Your task to perform on an android device: Search for Italian restaurants on Maps Image 0: 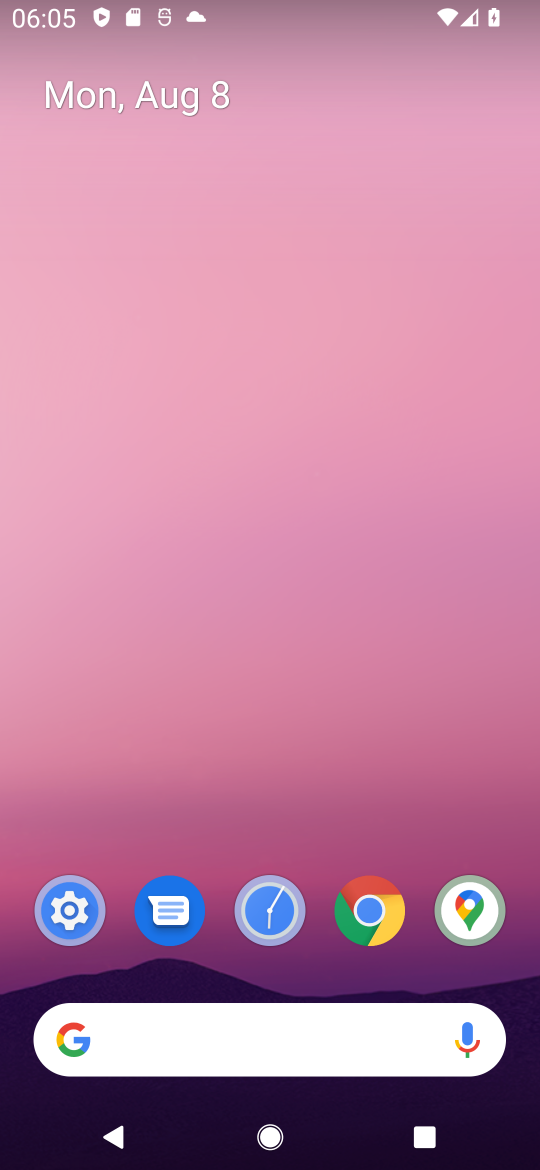
Step 0: click (473, 909)
Your task to perform on an android device: Search for Italian restaurants on Maps Image 1: 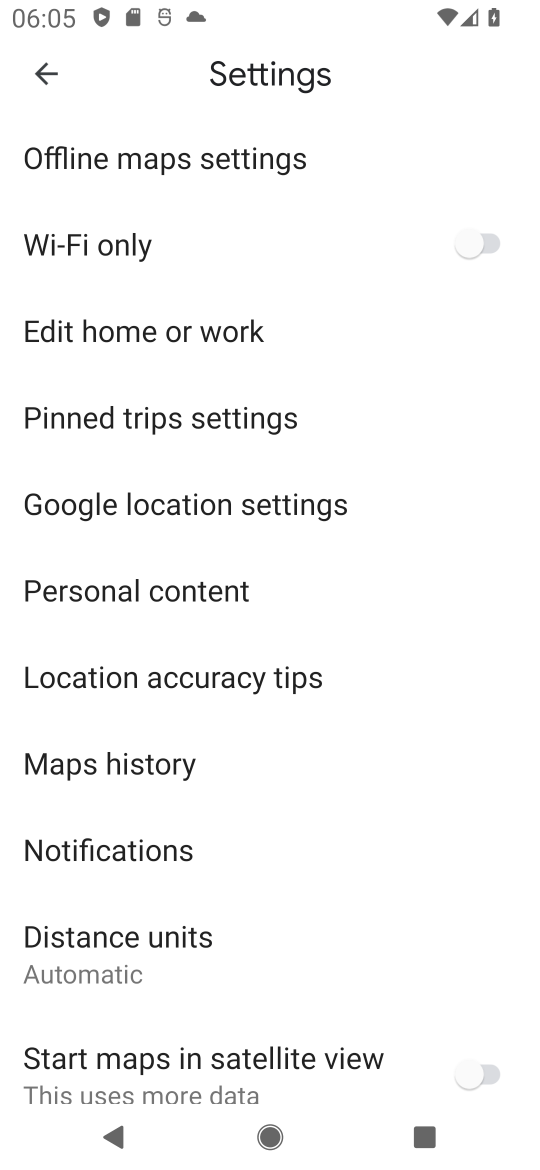
Step 1: press back button
Your task to perform on an android device: Search for Italian restaurants on Maps Image 2: 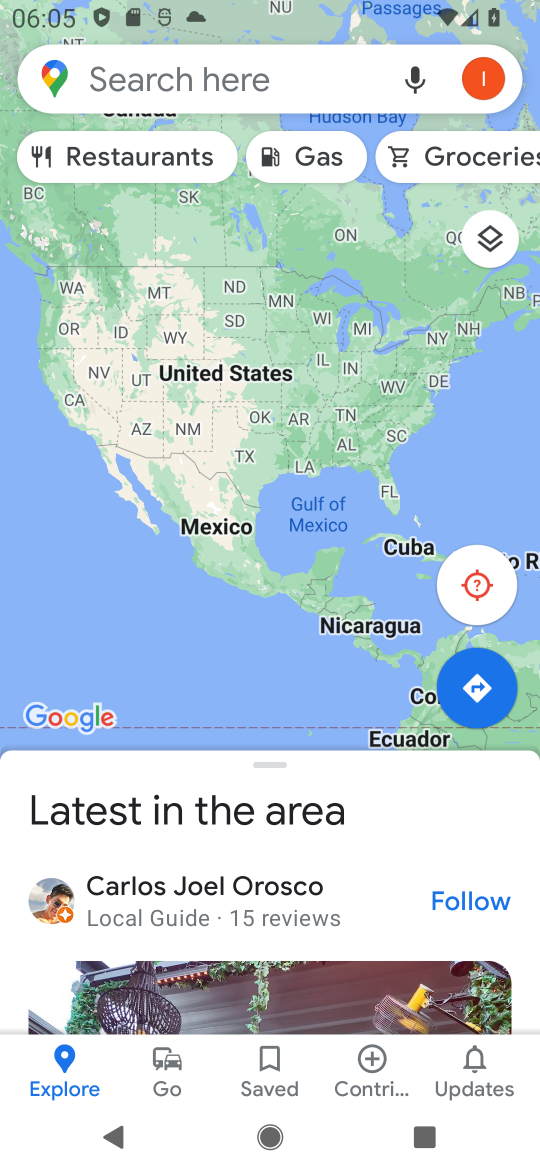
Step 2: click (295, 68)
Your task to perform on an android device: Search for Italian restaurants on Maps Image 3: 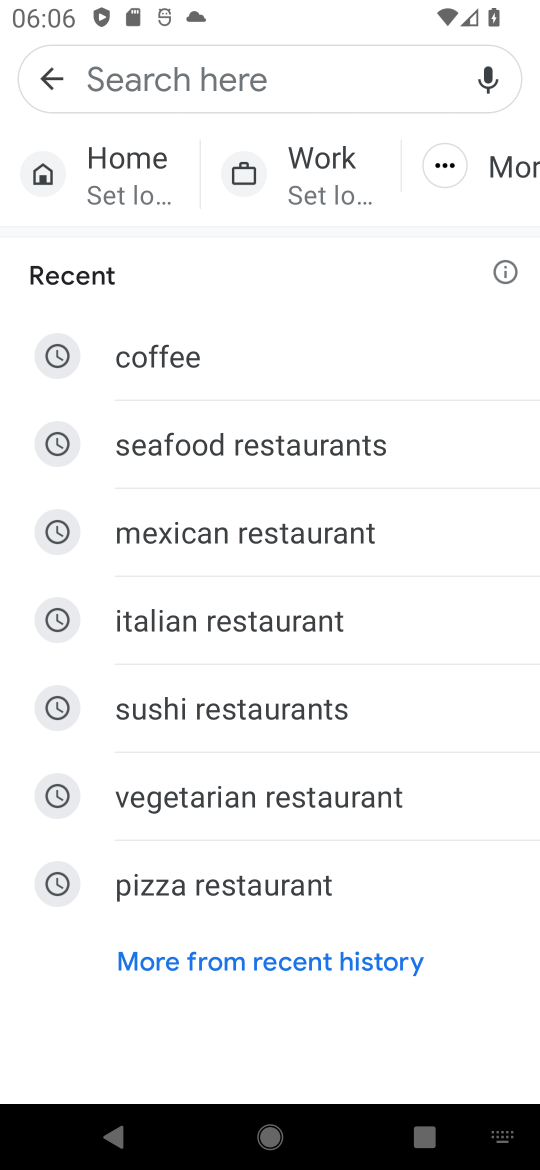
Step 3: type "Italian restaurants"
Your task to perform on an android device: Search for Italian restaurants on Maps Image 4: 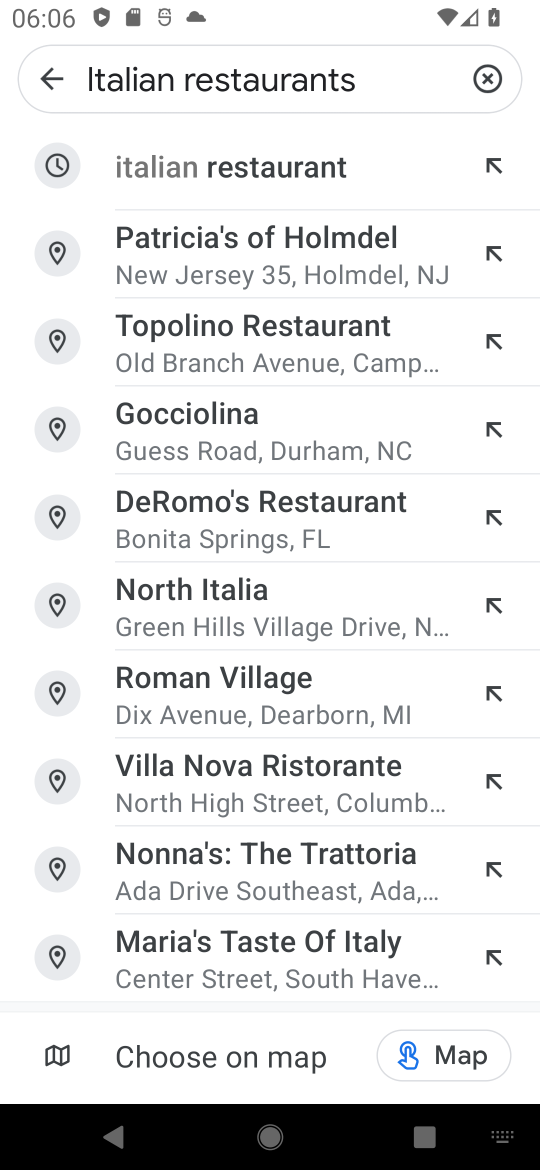
Step 4: click (256, 169)
Your task to perform on an android device: Search for Italian restaurants on Maps Image 5: 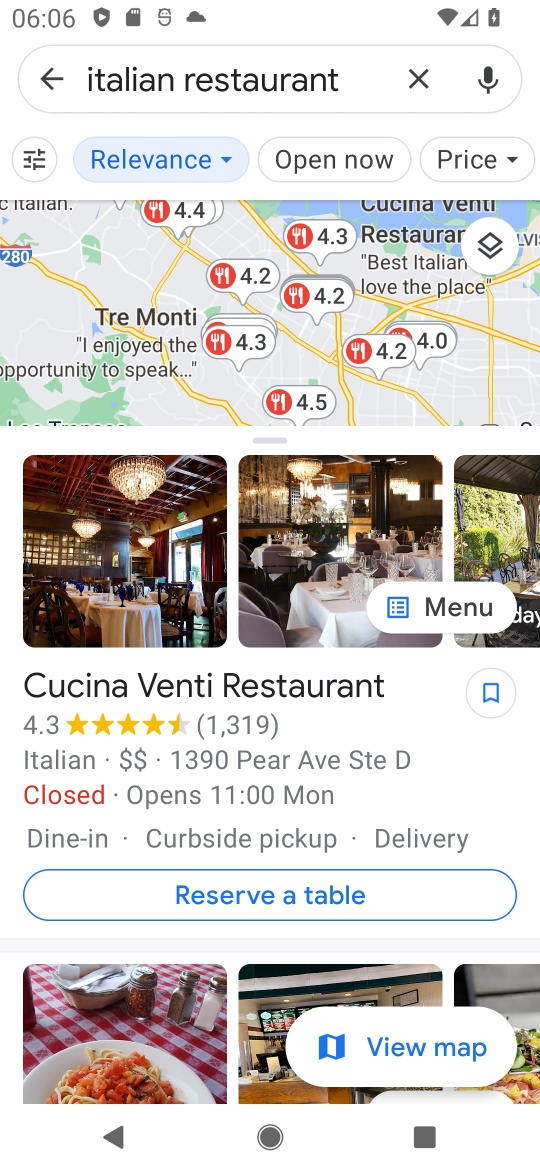
Step 5: task complete